Your task to perform on an android device: turn off smart reply in the gmail app Image 0: 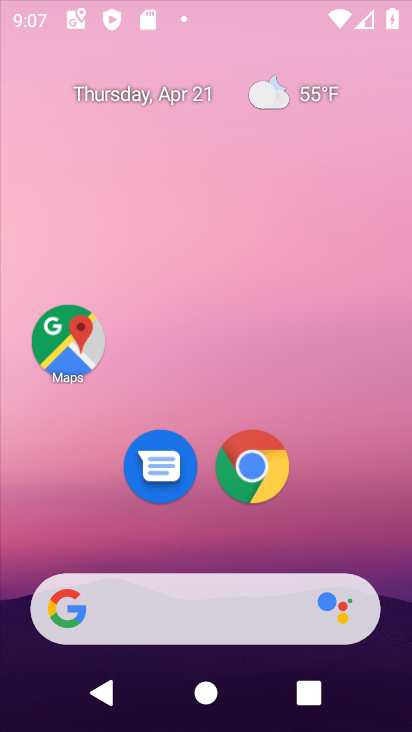
Step 0: drag from (317, 520) to (311, 109)
Your task to perform on an android device: turn off smart reply in the gmail app Image 1: 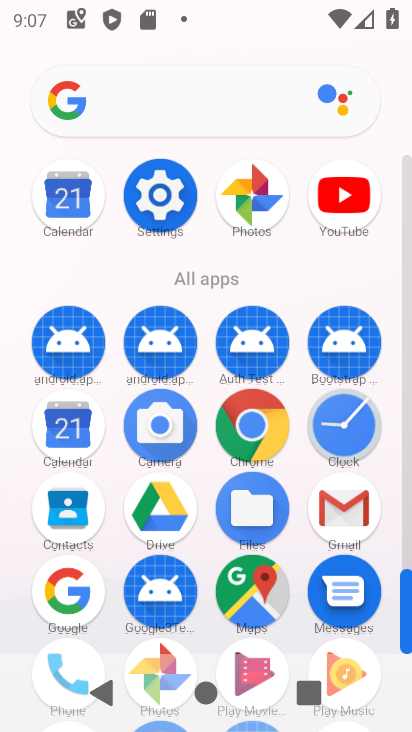
Step 1: click (351, 519)
Your task to perform on an android device: turn off smart reply in the gmail app Image 2: 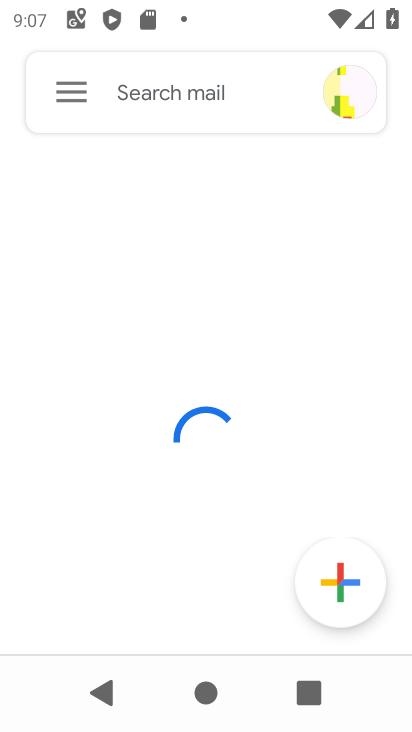
Step 2: click (73, 94)
Your task to perform on an android device: turn off smart reply in the gmail app Image 3: 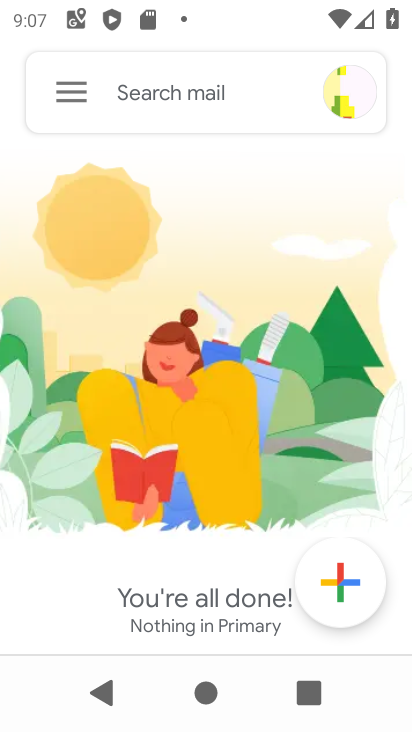
Step 3: click (77, 100)
Your task to perform on an android device: turn off smart reply in the gmail app Image 4: 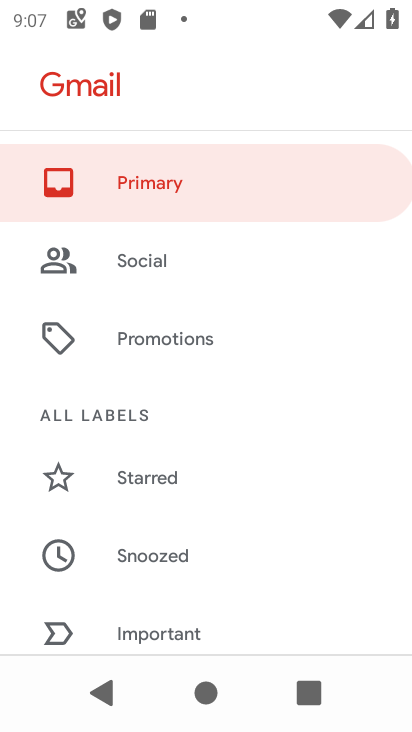
Step 4: drag from (183, 567) to (191, 223)
Your task to perform on an android device: turn off smart reply in the gmail app Image 5: 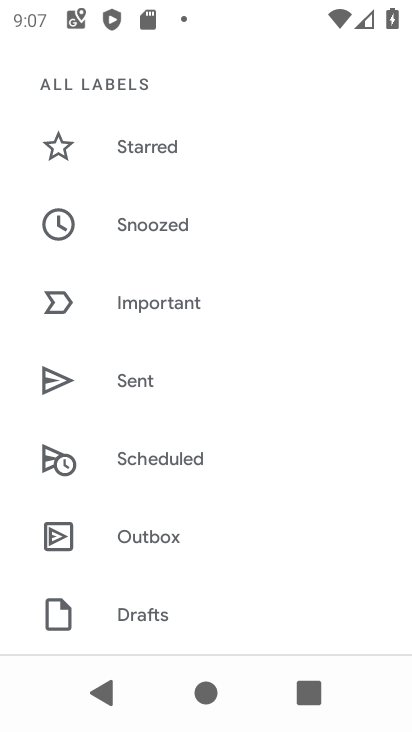
Step 5: drag from (222, 549) to (231, 121)
Your task to perform on an android device: turn off smart reply in the gmail app Image 6: 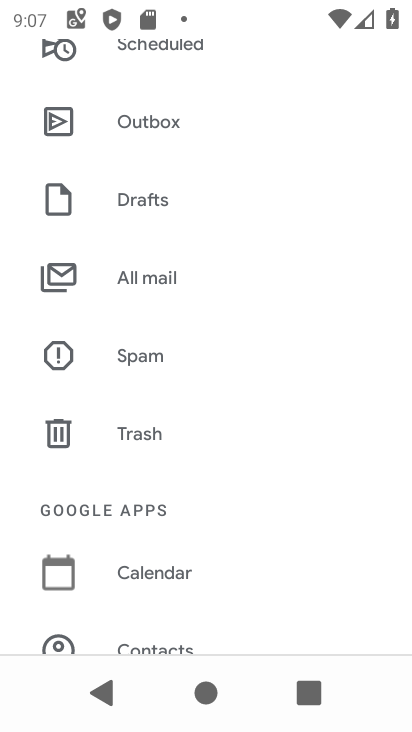
Step 6: drag from (183, 583) to (207, 112)
Your task to perform on an android device: turn off smart reply in the gmail app Image 7: 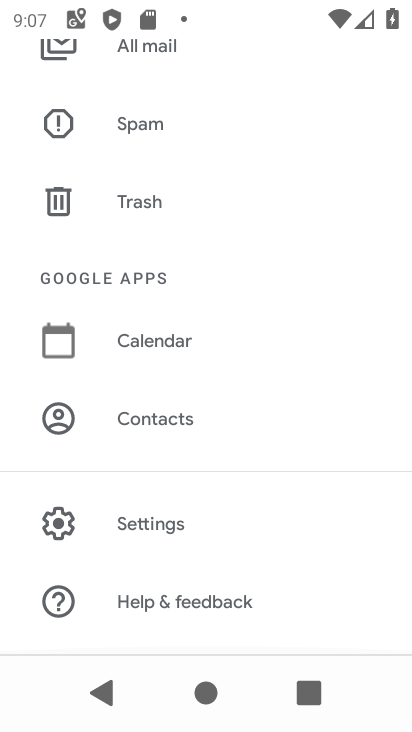
Step 7: click (154, 536)
Your task to perform on an android device: turn off smart reply in the gmail app Image 8: 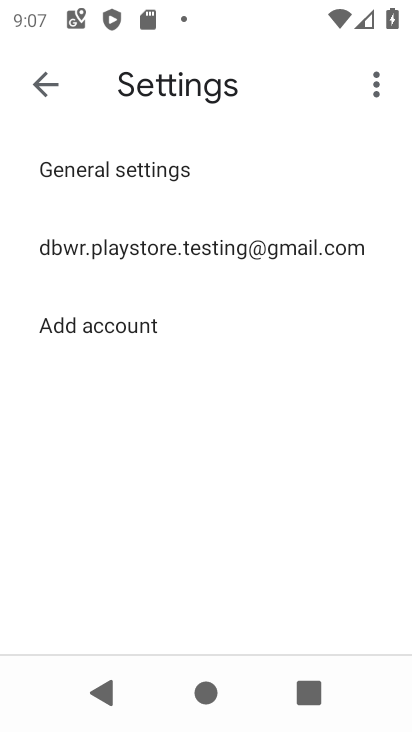
Step 8: click (173, 244)
Your task to perform on an android device: turn off smart reply in the gmail app Image 9: 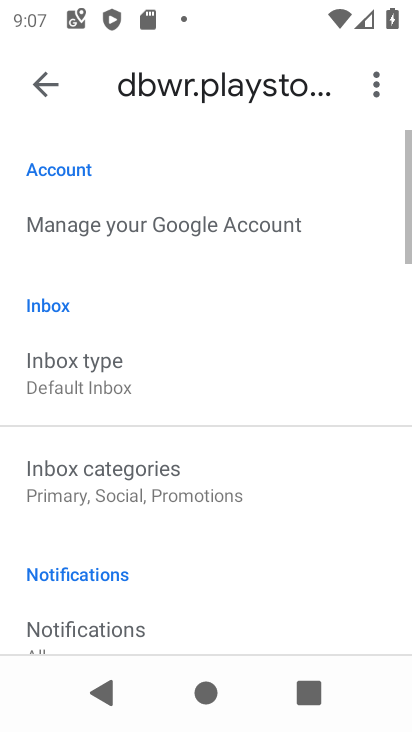
Step 9: drag from (165, 599) to (179, 199)
Your task to perform on an android device: turn off smart reply in the gmail app Image 10: 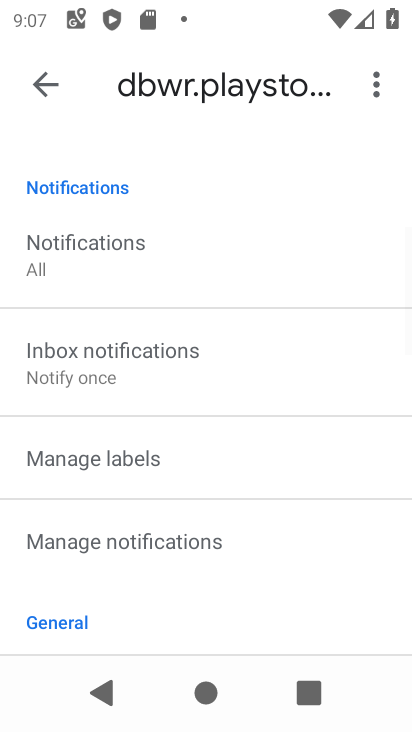
Step 10: drag from (180, 580) to (211, 173)
Your task to perform on an android device: turn off smart reply in the gmail app Image 11: 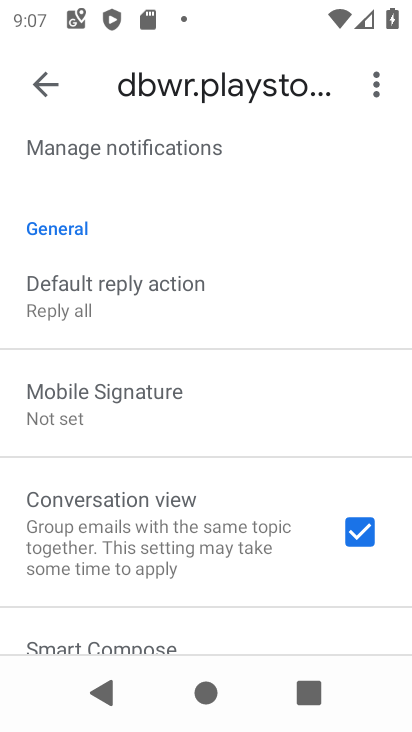
Step 11: drag from (172, 586) to (240, 230)
Your task to perform on an android device: turn off smart reply in the gmail app Image 12: 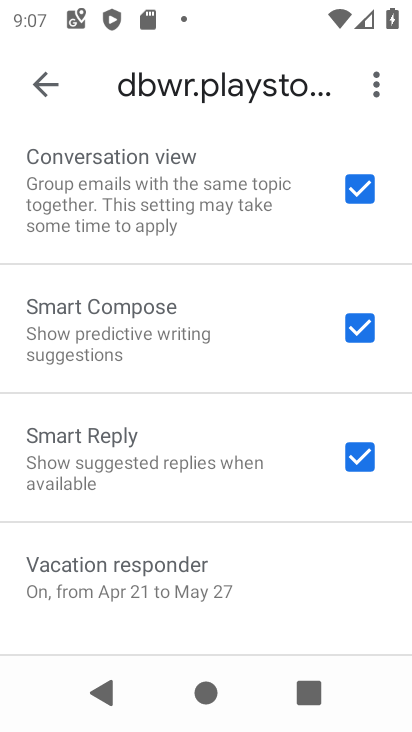
Step 12: click (362, 475)
Your task to perform on an android device: turn off smart reply in the gmail app Image 13: 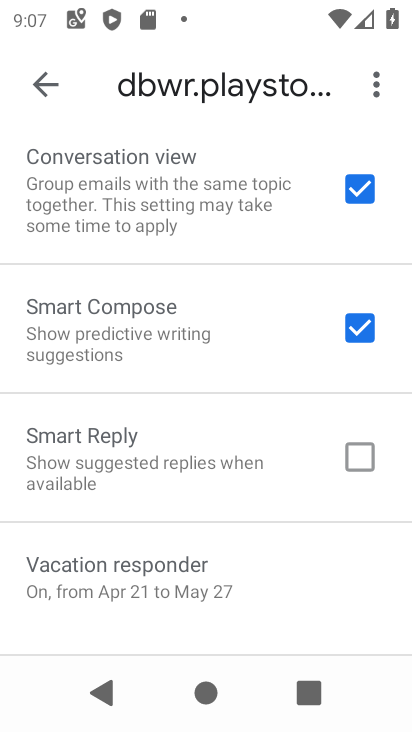
Step 13: task complete